Your task to perform on an android device: Go to privacy settings Image 0: 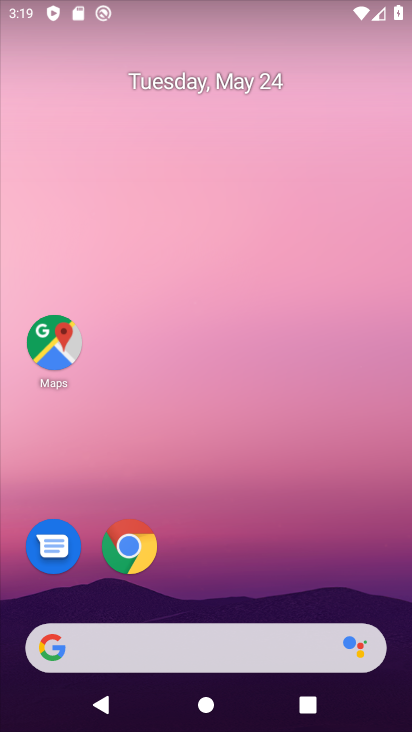
Step 0: click (232, 294)
Your task to perform on an android device: Go to privacy settings Image 1: 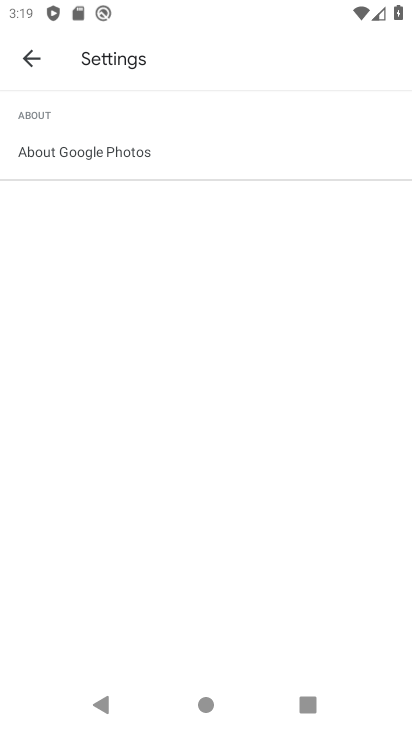
Step 1: press back button
Your task to perform on an android device: Go to privacy settings Image 2: 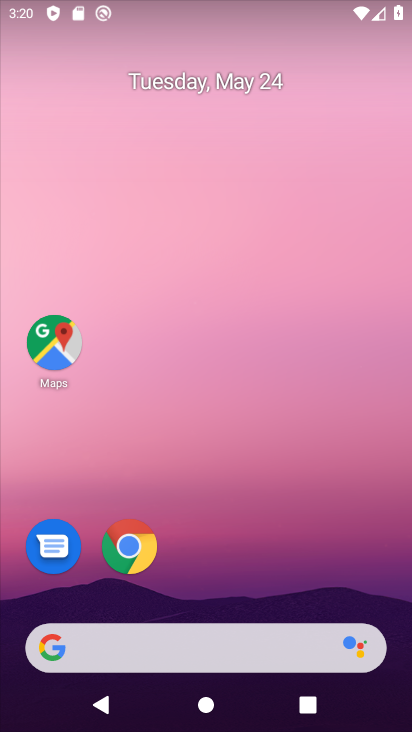
Step 2: drag from (264, 639) to (269, 117)
Your task to perform on an android device: Go to privacy settings Image 3: 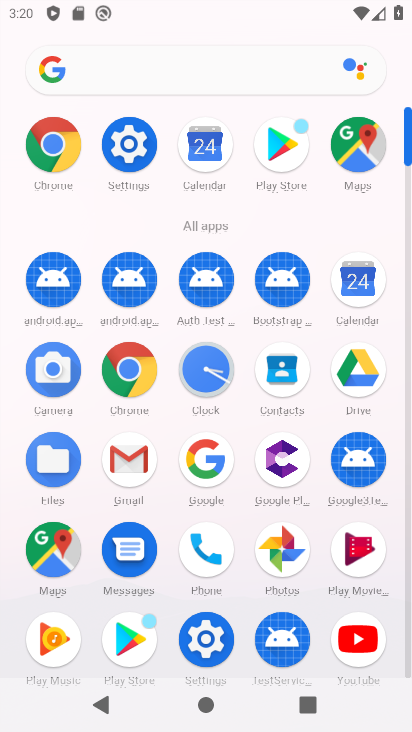
Step 3: click (135, 145)
Your task to perform on an android device: Go to privacy settings Image 4: 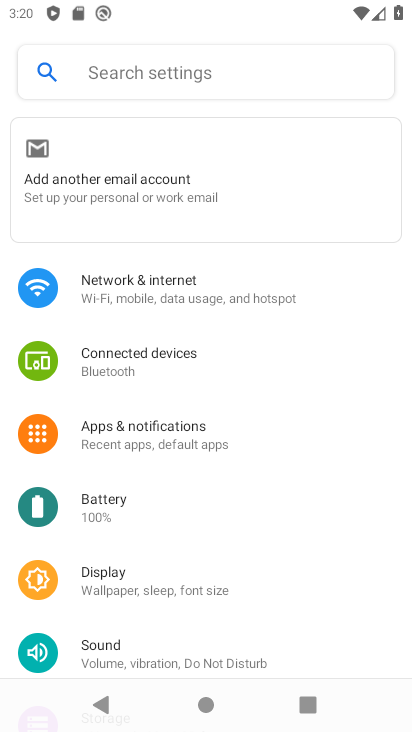
Step 4: drag from (162, 593) to (146, 251)
Your task to perform on an android device: Go to privacy settings Image 5: 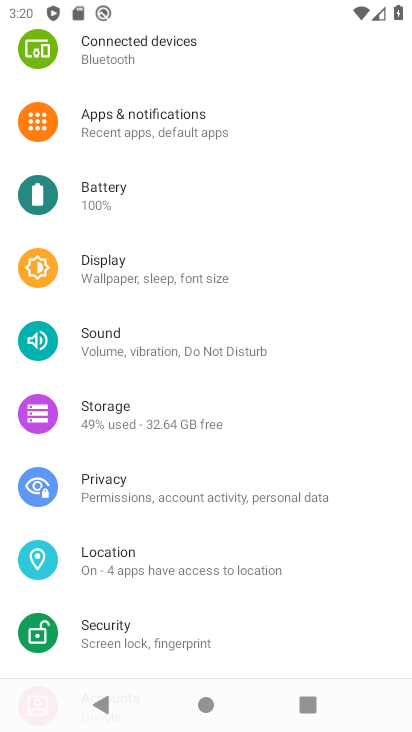
Step 5: drag from (198, 453) to (230, 233)
Your task to perform on an android device: Go to privacy settings Image 6: 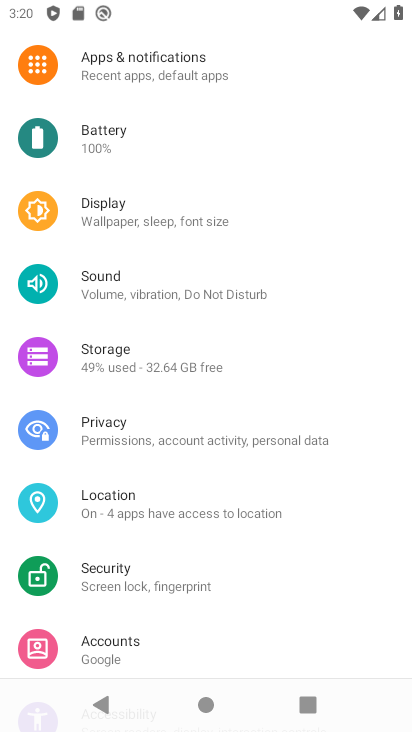
Step 6: click (103, 429)
Your task to perform on an android device: Go to privacy settings Image 7: 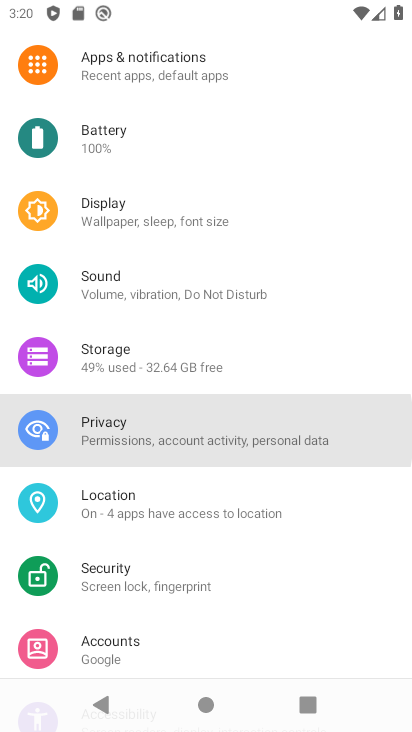
Step 7: click (103, 429)
Your task to perform on an android device: Go to privacy settings Image 8: 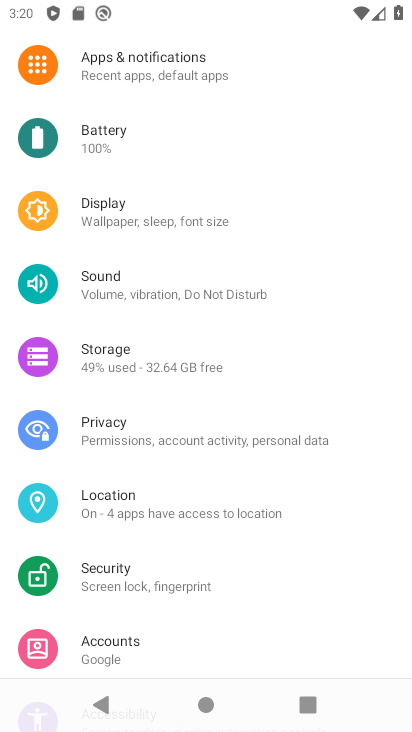
Step 8: click (103, 429)
Your task to perform on an android device: Go to privacy settings Image 9: 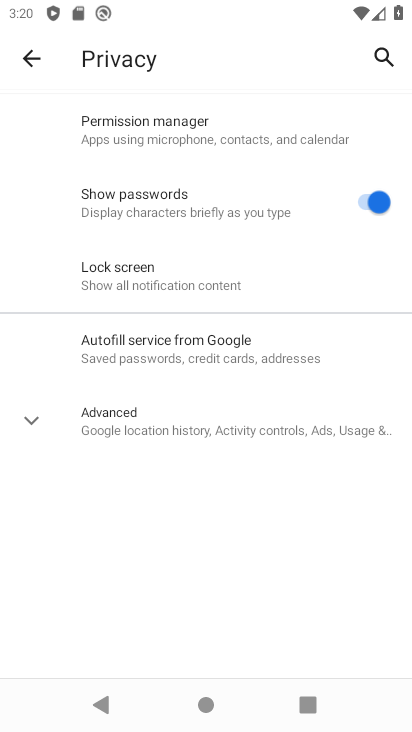
Step 9: task complete